Your task to perform on an android device: add a contact in the contacts app Image 0: 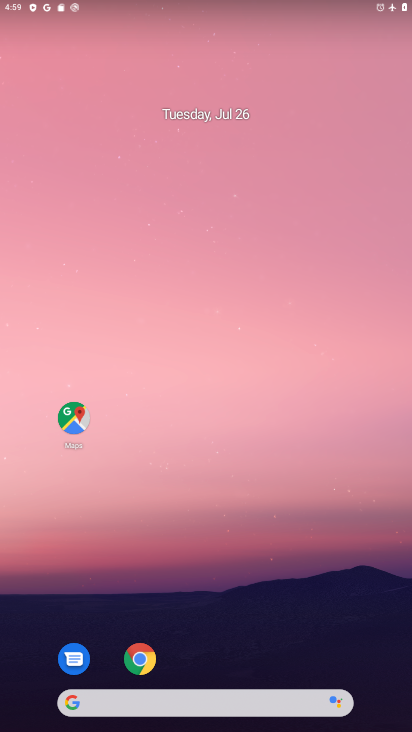
Step 0: press home button
Your task to perform on an android device: add a contact in the contacts app Image 1: 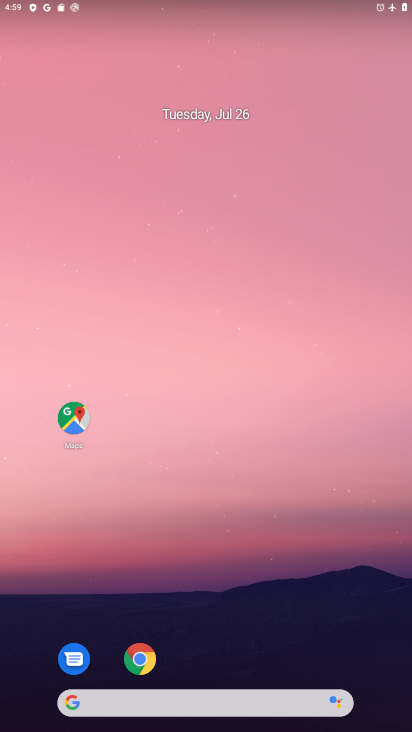
Step 1: drag from (206, 667) to (260, 89)
Your task to perform on an android device: add a contact in the contacts app Image 2: 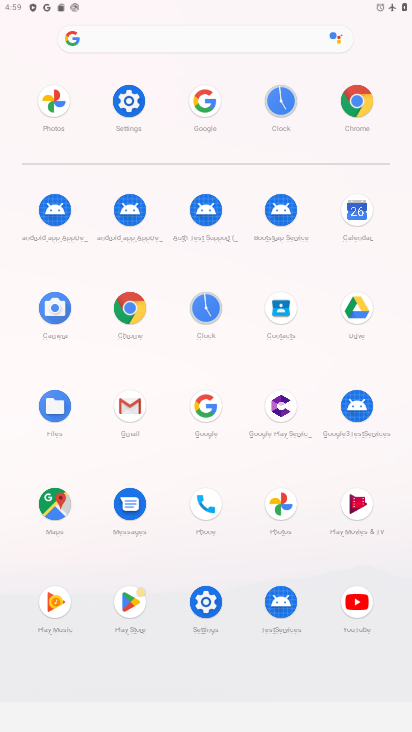
Step 2: click (280, 303)
Your task to perform on an android device: add a contact in the contacts app Image 3: 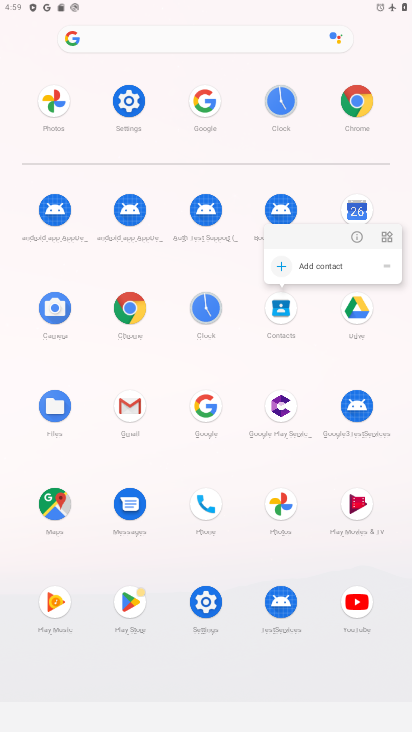
Step 3: click (278, 309)
Your task to perform on an android device: add a contact in the contacts app Image 4: 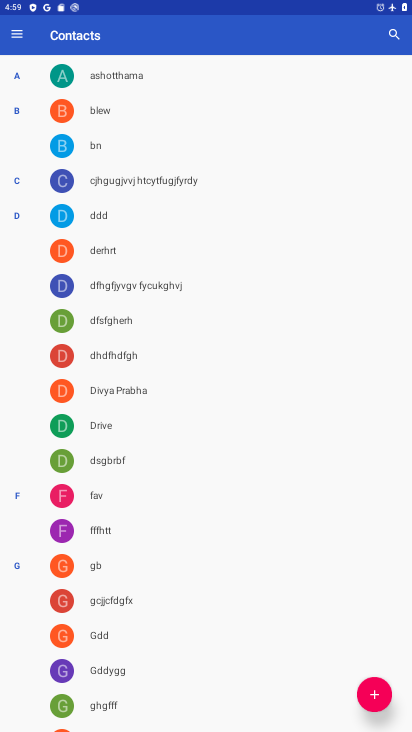
Step 4: click (373, 692)
Your task to perform on an android device: add a contact in the contacts app Image 5: 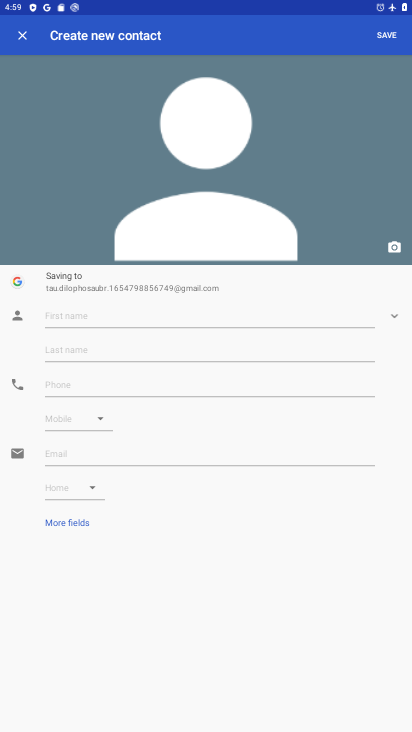
Step 5: click (84, 311)
Your task to perform on an android device: add a contact in the contacts app Image 6: 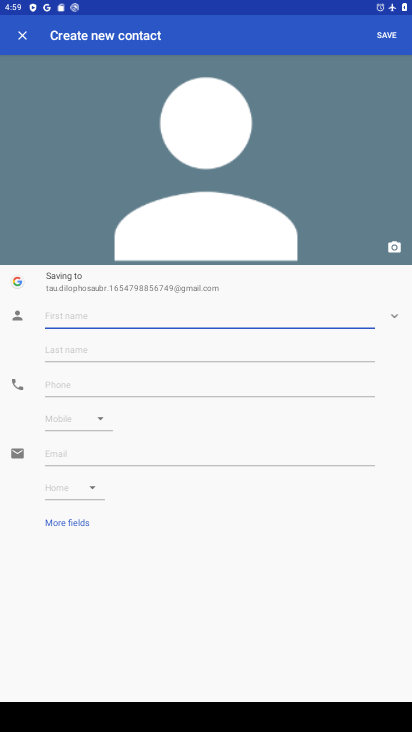
Step 6: type "fcrdxrt"
Your task to perform on an android device: add a contact in the contacts app Image 7: 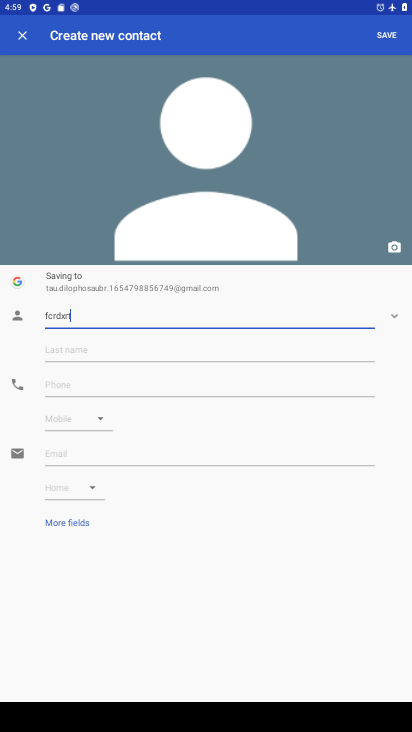
Step 7: click (387, 31)
Your task to perform on an android device: add a contact in the contacts app Image 8: 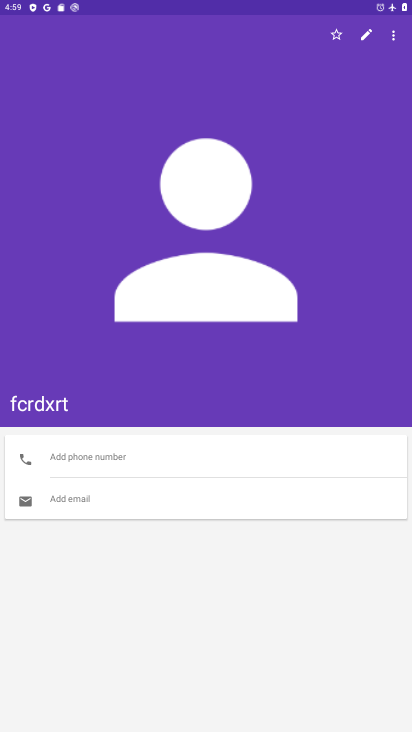
Step 8: task complete